Your task to perform on an android device: install app "Fetch Rewards" Image 0: 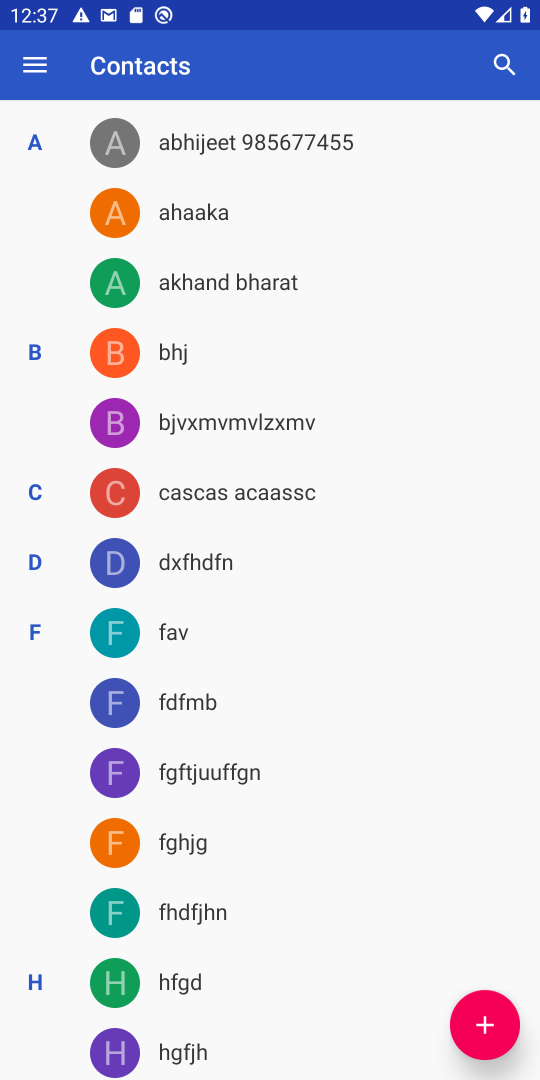
Step 0: press home button
Your task to perform on an android device: install app "Fetch Rewards" Image 1: 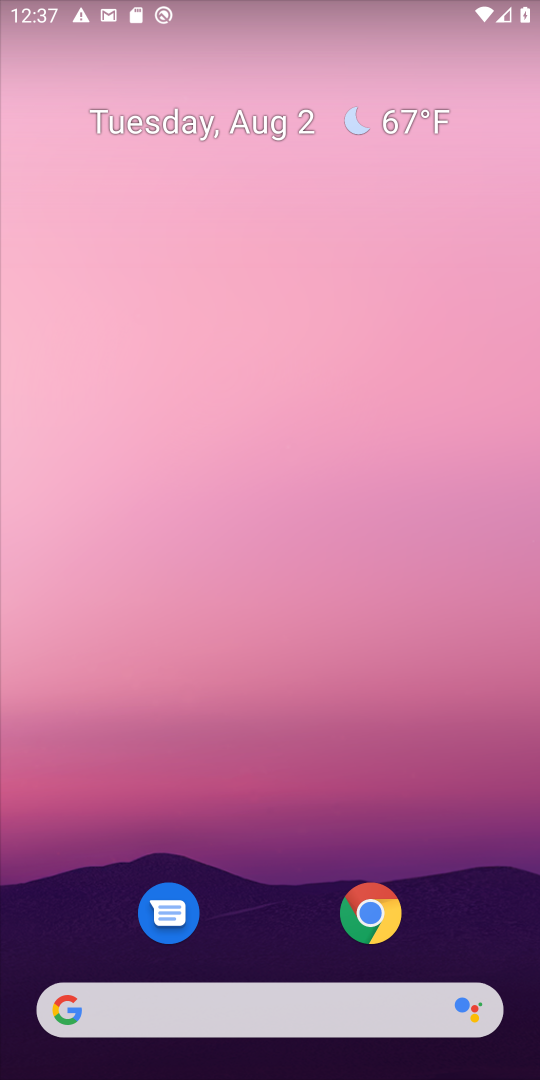
Step 1: drag from (496, 912) to (436, 205)
Your task to perform on an android device: install app "Fetch Rewards" Image 2: 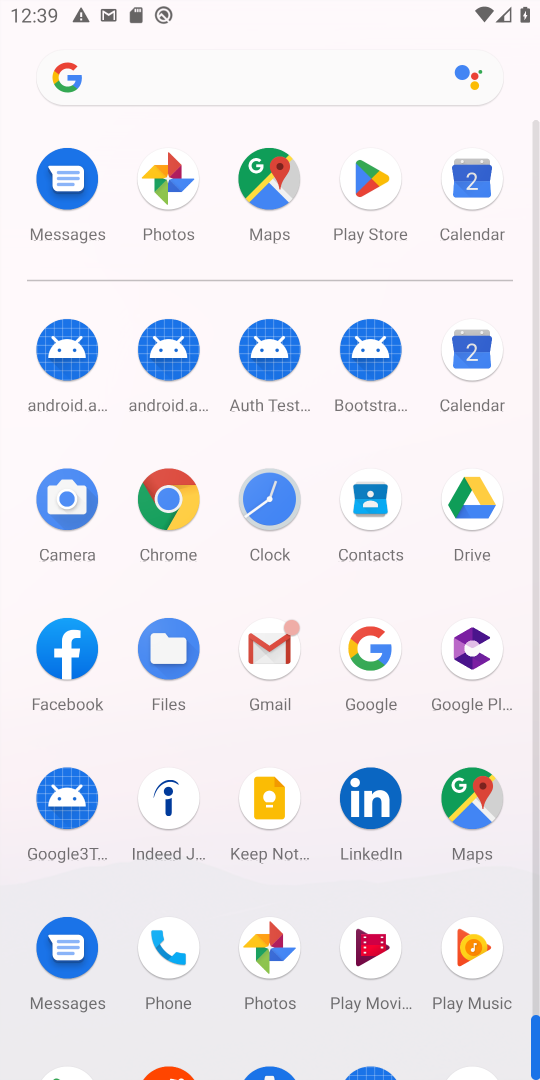
Step 2: click (378, 180)
Your task to perform on an android device: install app "Fetch Rewards" Image 3: 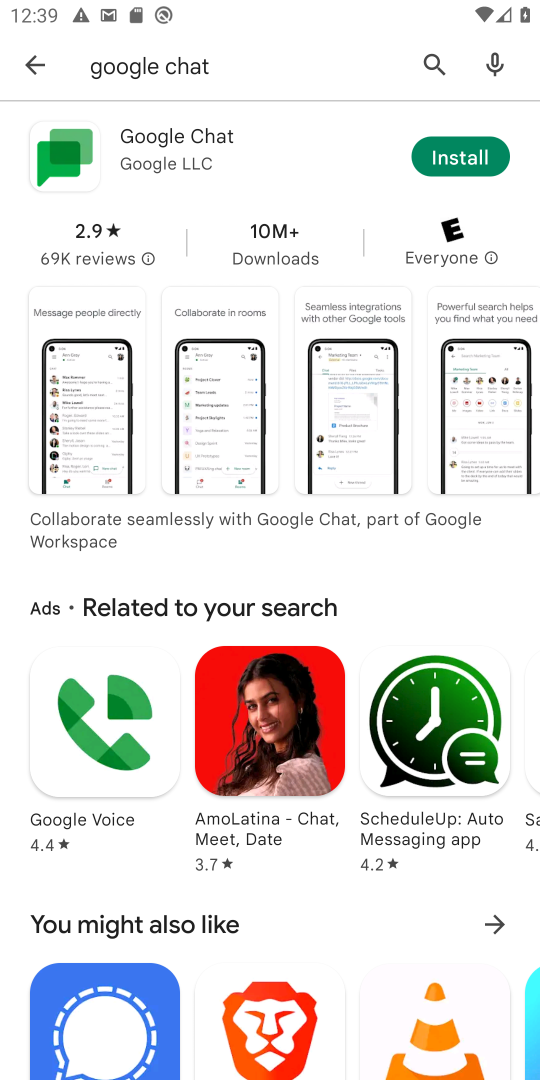
Step 3: click (433, 54)
Your task to perform on an android device: install app "Fetch Rewards" Image 4: 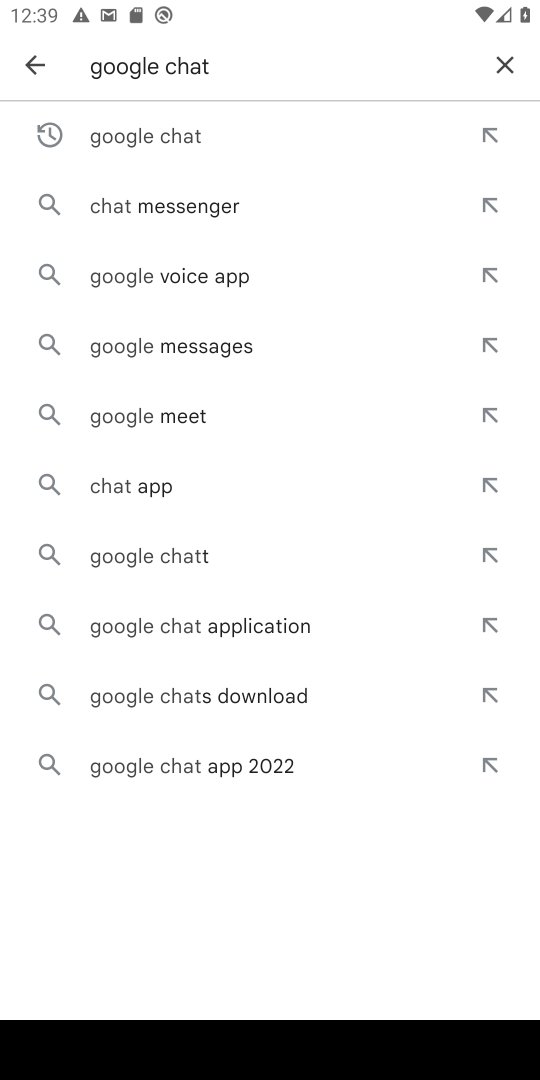
Step 4: click (508, 59)
Your task to perform on an android device: install app "Fetch Rewards" Image 5: 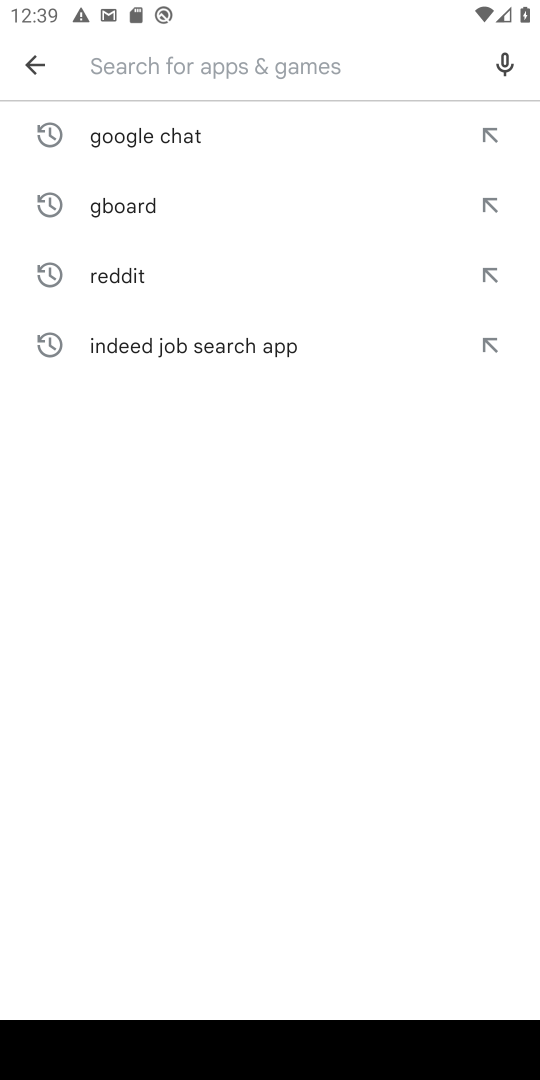
Step 5: type "Fetch Rewards"
Your task to perform on an android device: install app "Fetch Rewards" Image 6: 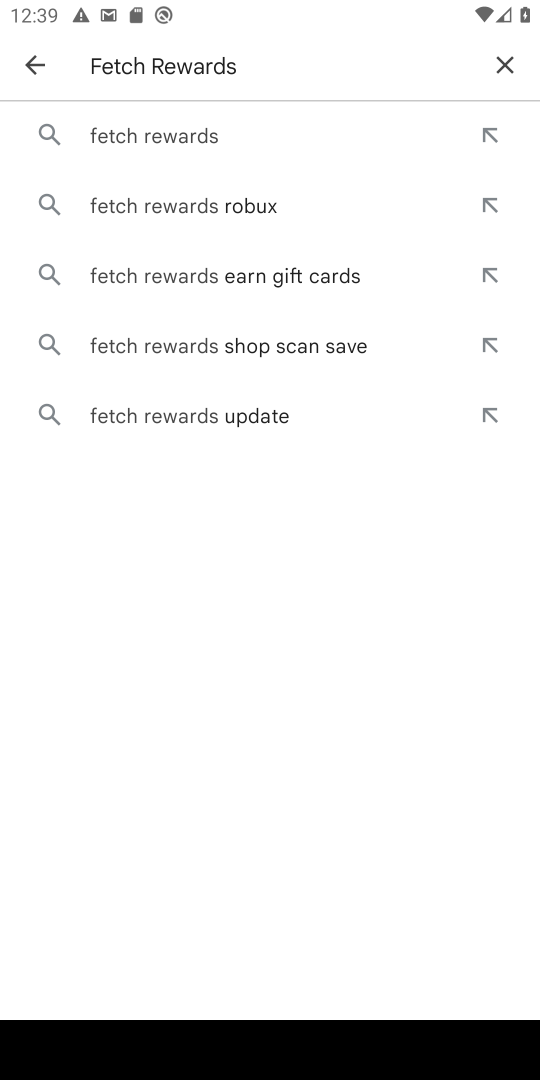
Step 6: click (149, 129)
Your task to perform on an android device: install app "Fetch Rewards" Image 7: 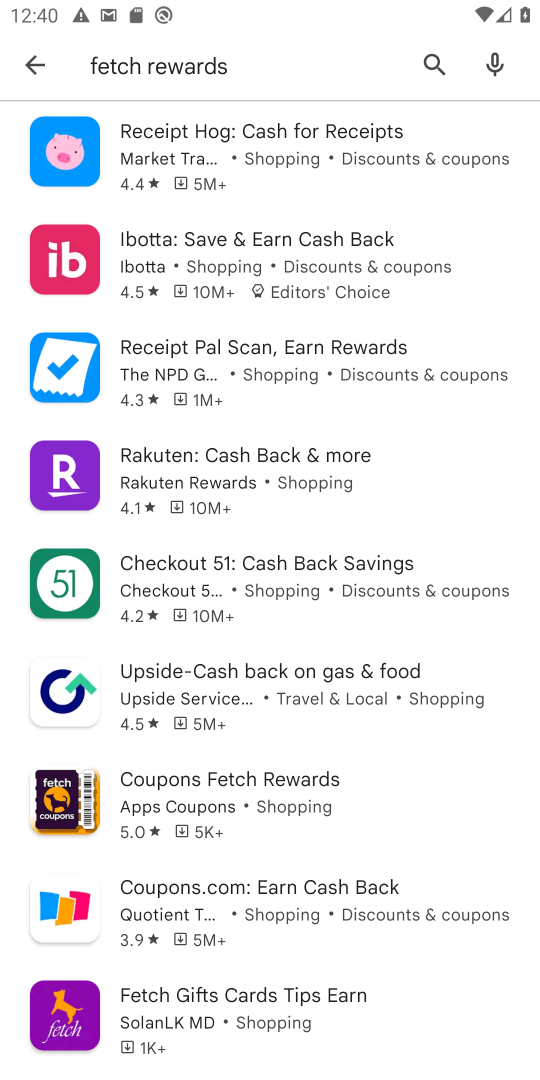
Step 7: task complete